Your task to perform on an android device: change notification settings in the gmail app Image 0: 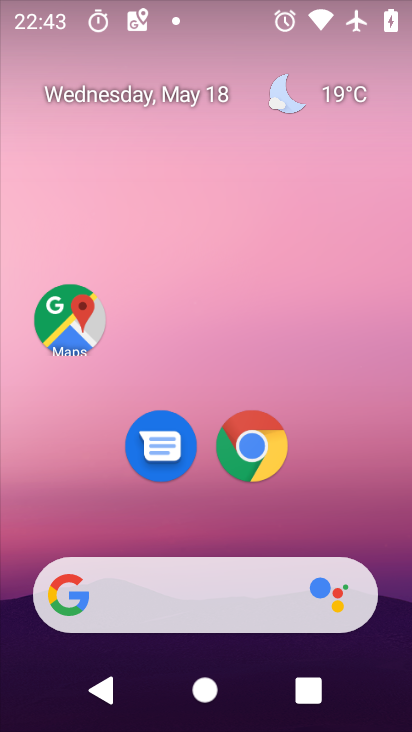
Step 0: press home button
Your task to perform on an android device: change notification settings in the gmail app Image 1: 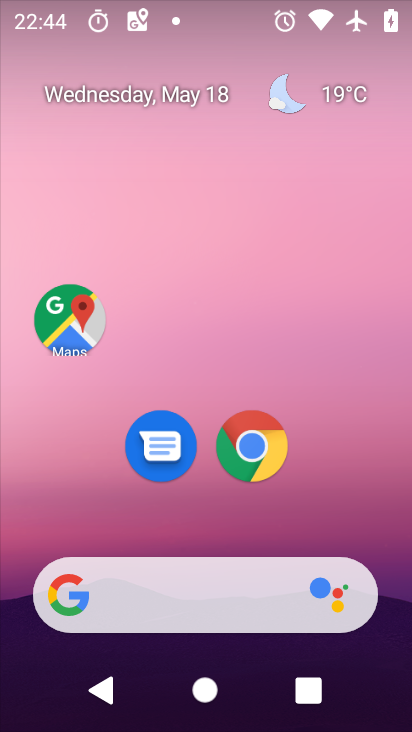
Step 1: drag from (179, 547) to (309, 245)
Your task to perform on an android device: change notification settings in the gmail app Image 2: 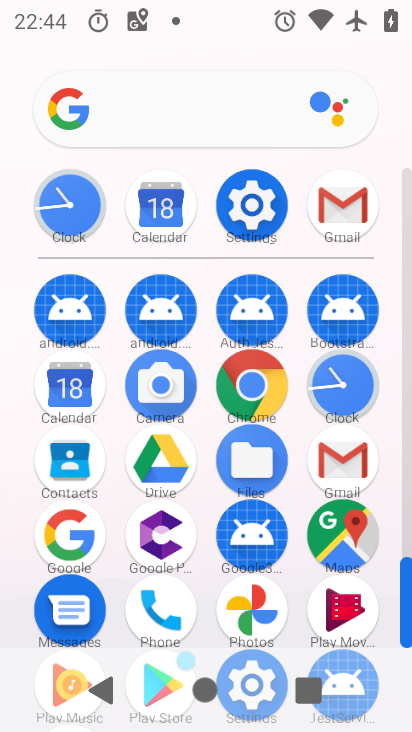
Step 2: click (340, 460)
Your task to perform on an android device: change notification settings in the gmail app Image 3: 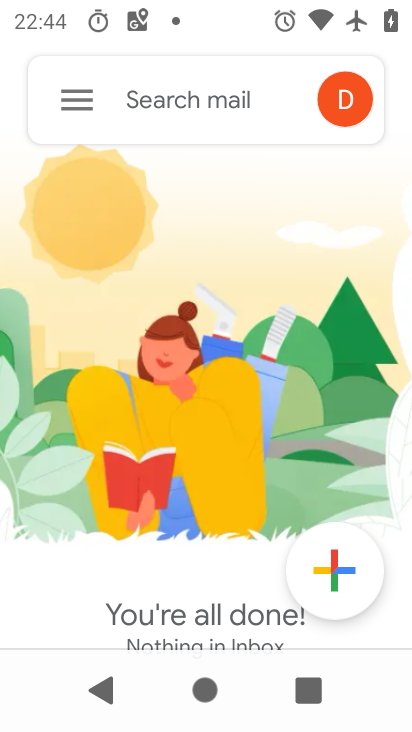
Step 3: click (89, 103)
Your task to perform on an android device: change notification settings in the gmail app Image 4: 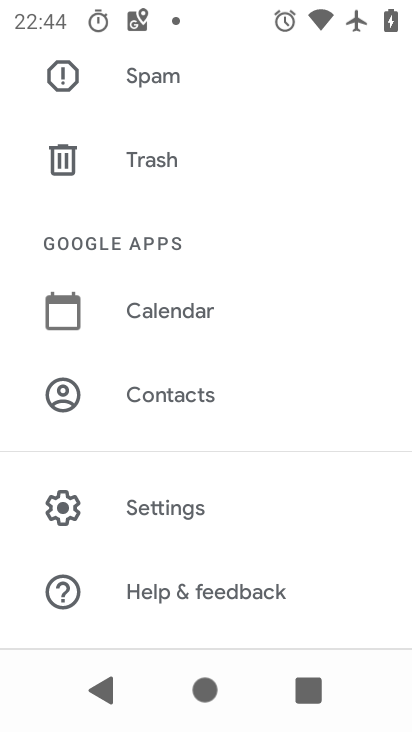
Step 4: click (168, 498)
Your task to perform on an android device: change notification settings in the gmail app Image 5: 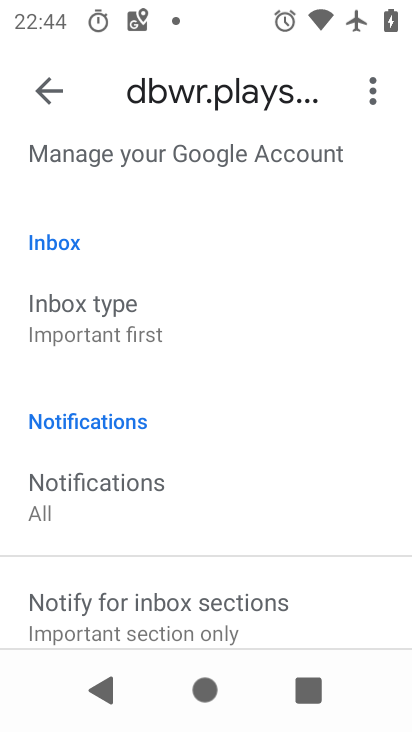
Step 5: click (149, 507)
Your task to perform on an android device: change notification settings in the gmail app Image 6: 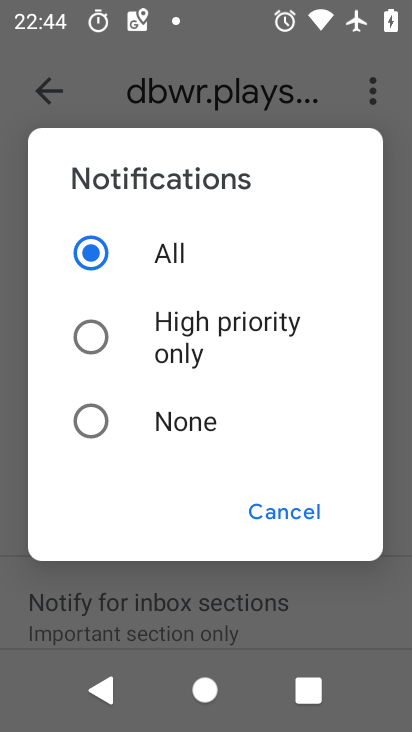
Step 6: click (100, 423)
Your task to perform on an android device: change notification settings in the gmail app Image 7: 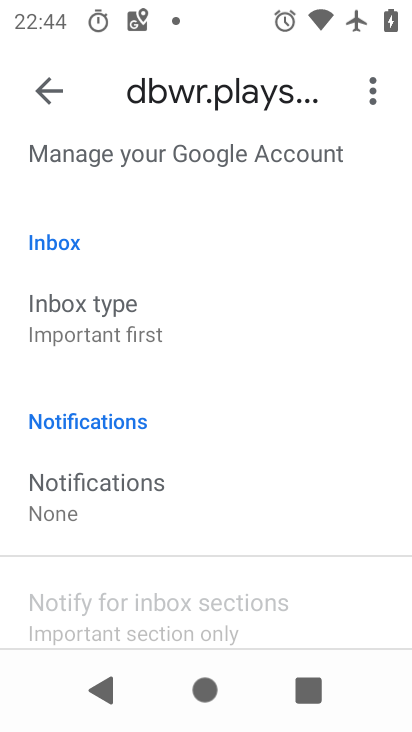
Step 7: task complete